Your task to perform on an android device: check battery use Image 0: 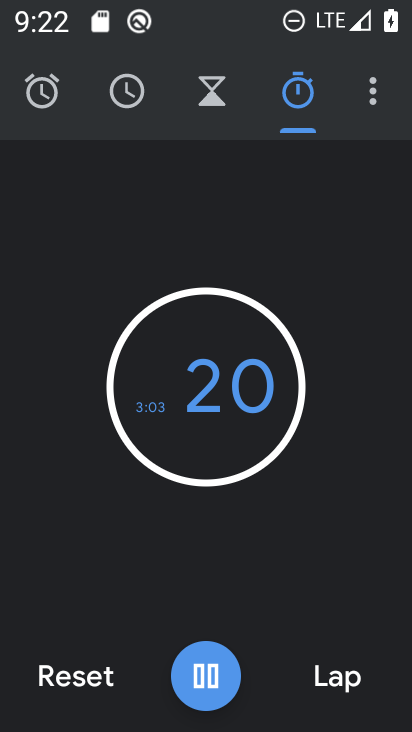
Step 0: click (78, 677)
Your task to perform on an android device: check battery use Image 1: 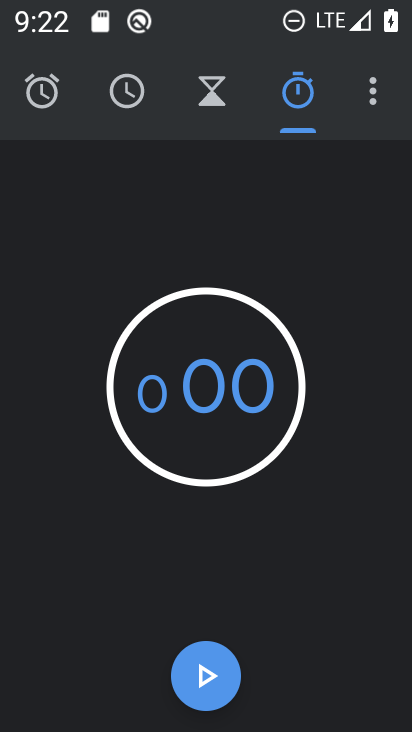
Step 1: press home button
Your task to perform on an android device: check battery use Image 2: 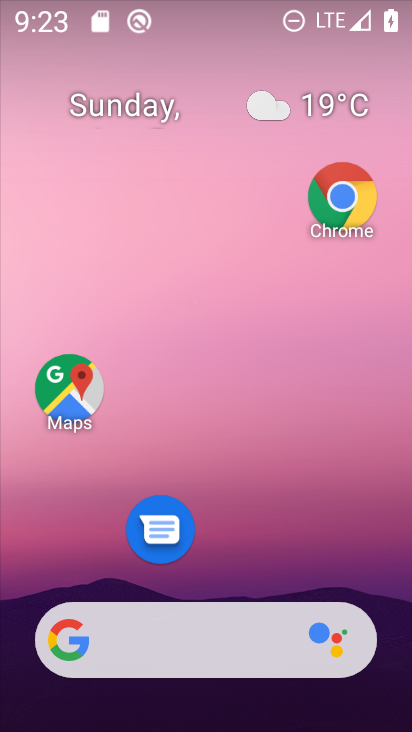
Step 2: drag from (229, 578) to (212, 63)
Your task to perform on an android device: check battery use Image 3: 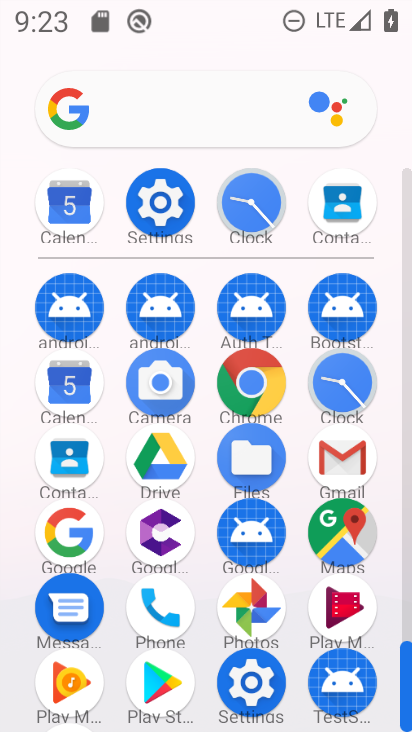
Step 3: click (160, 197)
Your task to perform on an android device: check battery use Image 4: 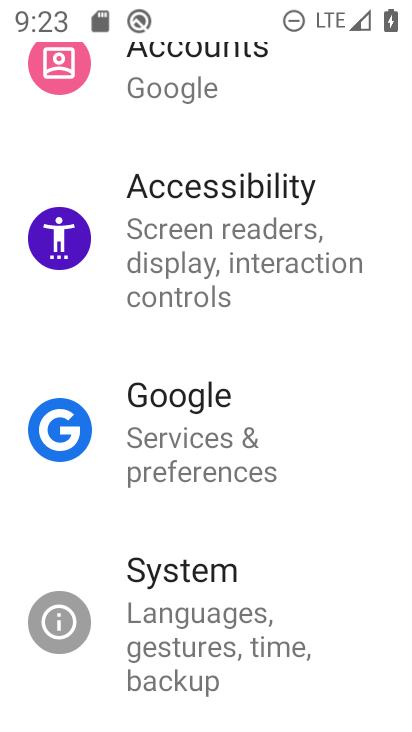
Step 4: drag from (223, 106) to (197, 726)
Your task to perform on an android device: check battery use Image 5: 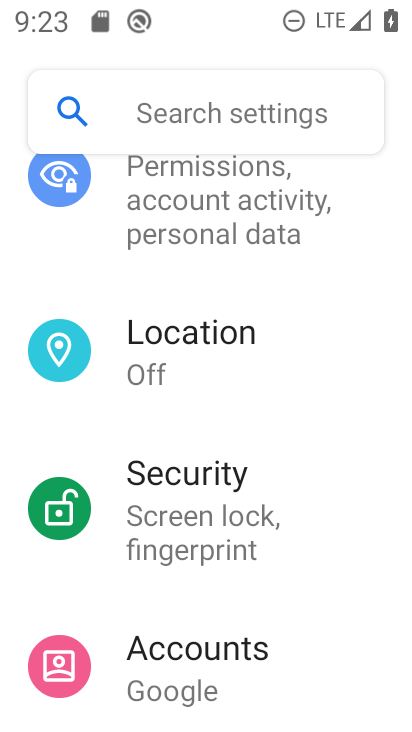
Step 5: drag from (252, 178) to (244, 712)
Your task to perform on an android device: check battery use Image 6: 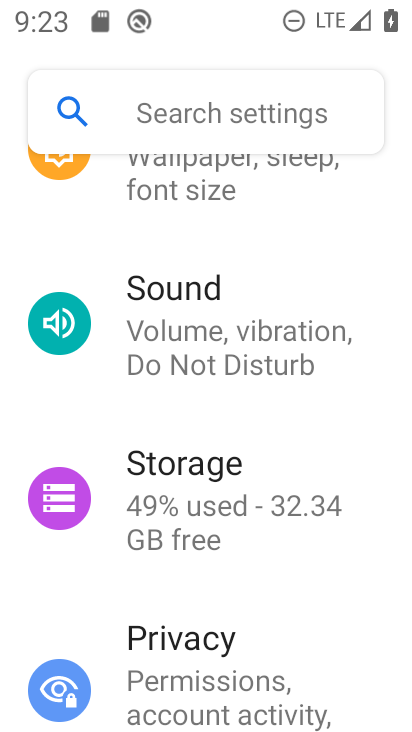
Step 6: drag from (253, 186) to (235, 683)
Your task to perform on an android device: check battery use Image 7: 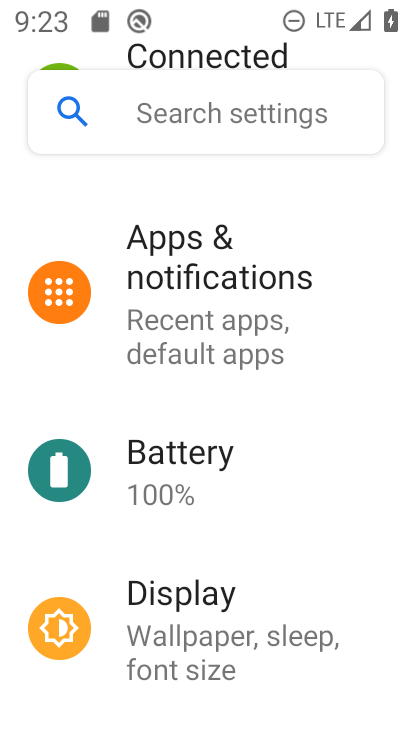
Step 7: click (227, 472)
Your task to perform on an android device: check battery use Image 8: 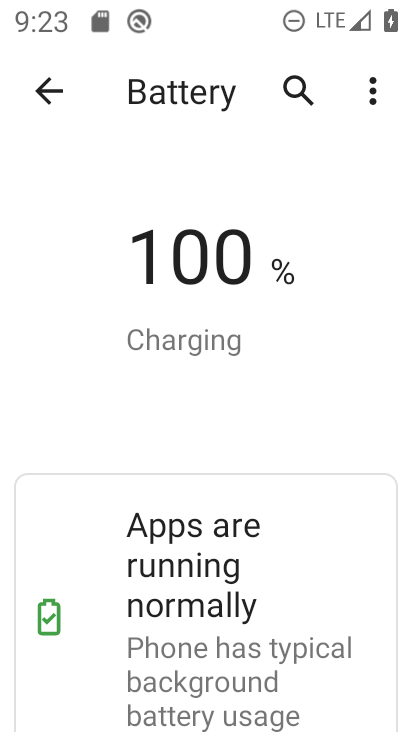
Step 8: click (374, 83)
Your task to perform on an android device: check battery use Image 9: 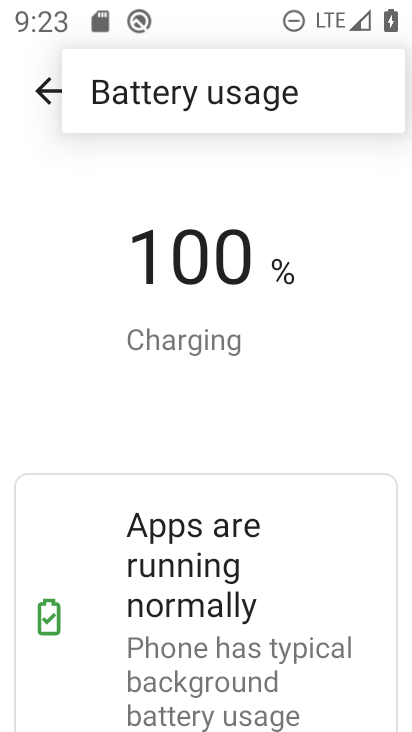
Step 9: click (200, 102)
Your task to perform on an android device: check battery use Image 10: 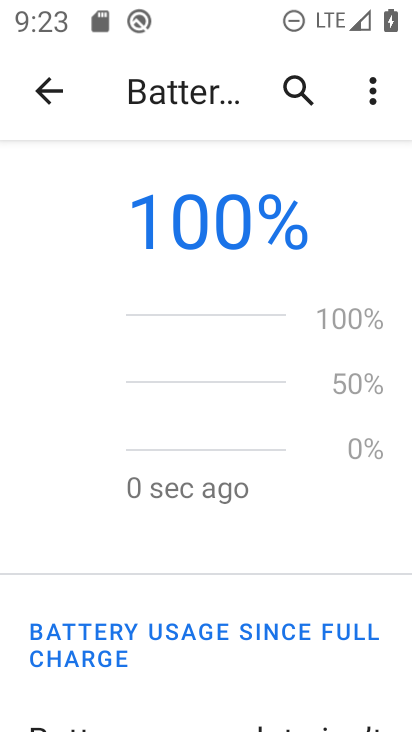
Step 10: click (375, 86)
Your task to perform on an android device: check battery use Image 11: 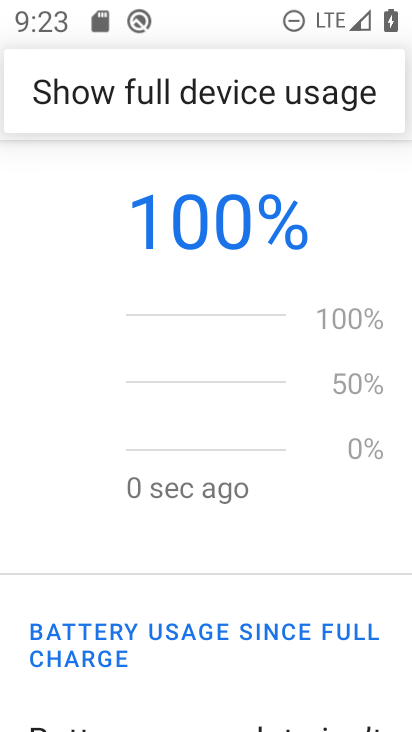
Step 11: task complete